Your task to perform on an android device: set an alarm Image 0: 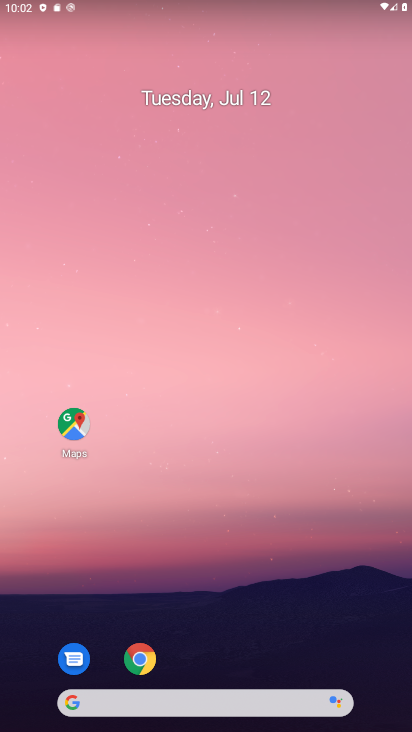
Step 0: drag from (220, 699) to (243, 302)
Your task to perform on an android device: set an alarm Image 1: 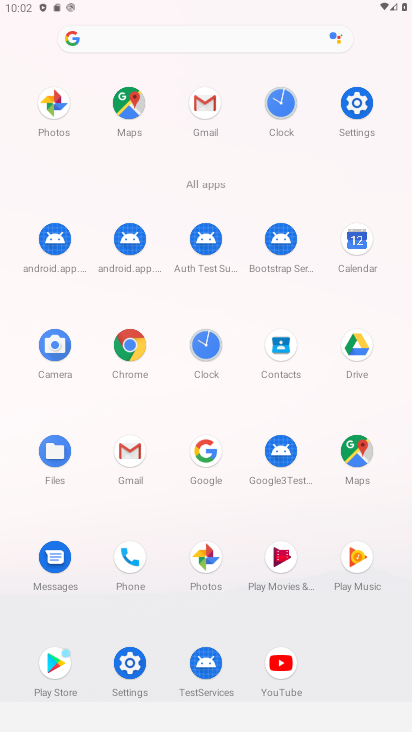
Step 1: click (274, 98)
Your task to perform on an android device: set an alarm Image 2: 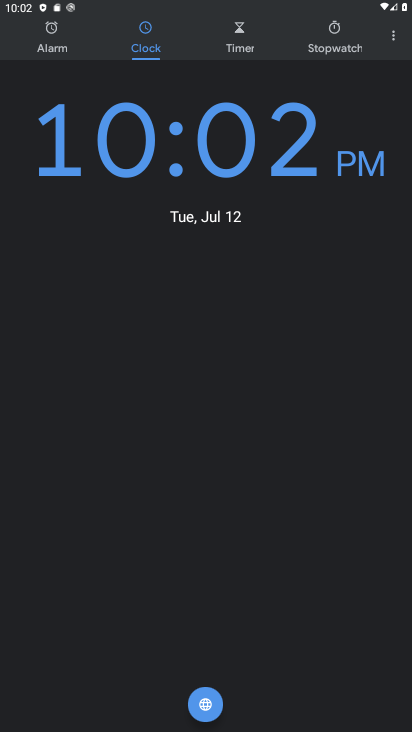
Step 2: click (60, 33)
Your task to perform on an android device: set an alarm Image 3: 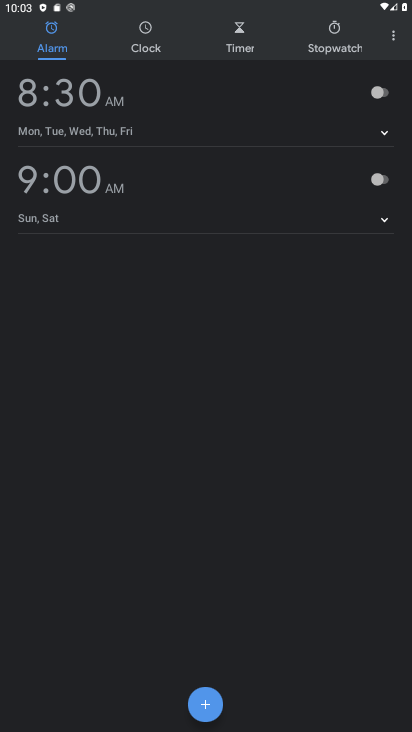
Step 3: click (207, 697)
Your task to perform on an android device: set an alarm Image 4: 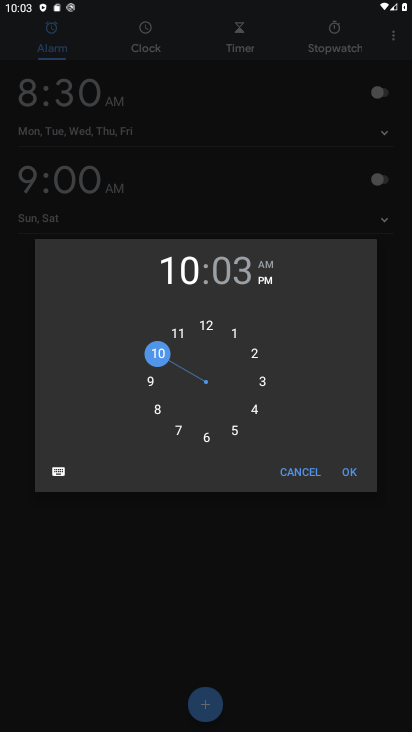
Step 4: click (198, 439)
Your task to perform on an android device: set an alarm Image 5: 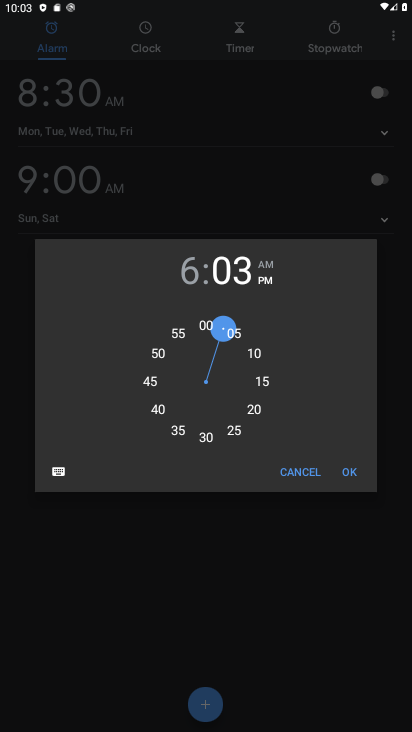
Step 5: click (348, 474)
Your task to perform on an android device: set an alarm Image 6: 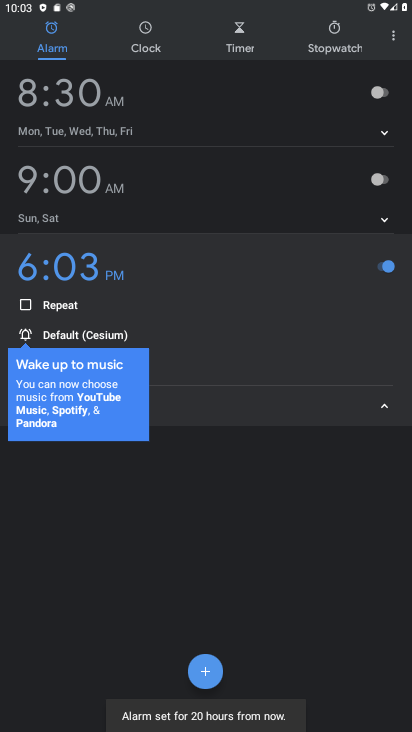
Step 6: task complete